Your task to perform on an android device: see sites visited before in the chrome app Image 0: 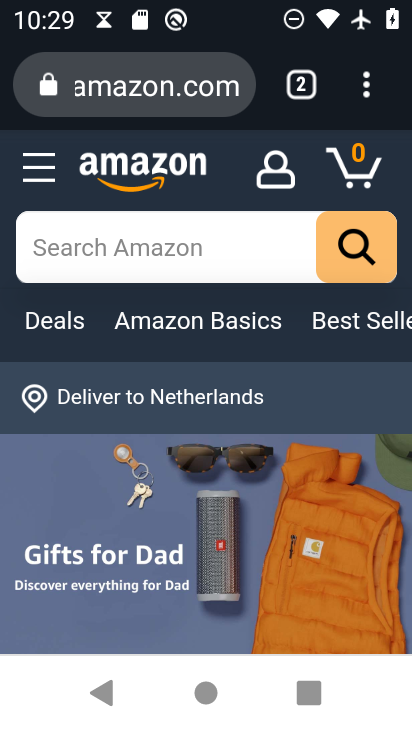
Step 0: drag from (366, 75) to (91, 381)
Your task to perform on an android device: see sites visited before in the chrome app Image 1: 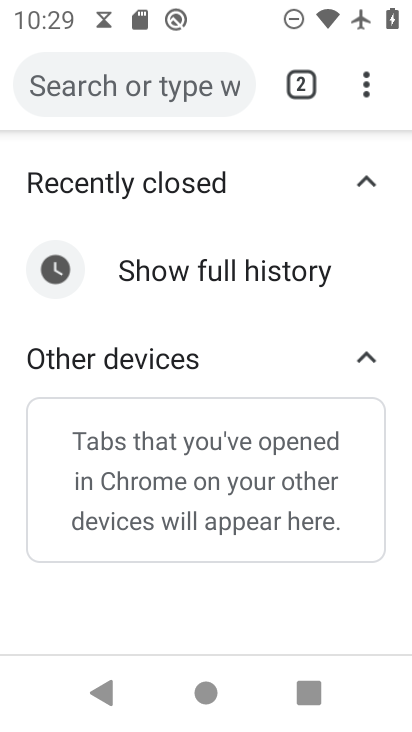
Step 1: task complete